Your task to perform on an android device: turn off airplane mode Image 0: 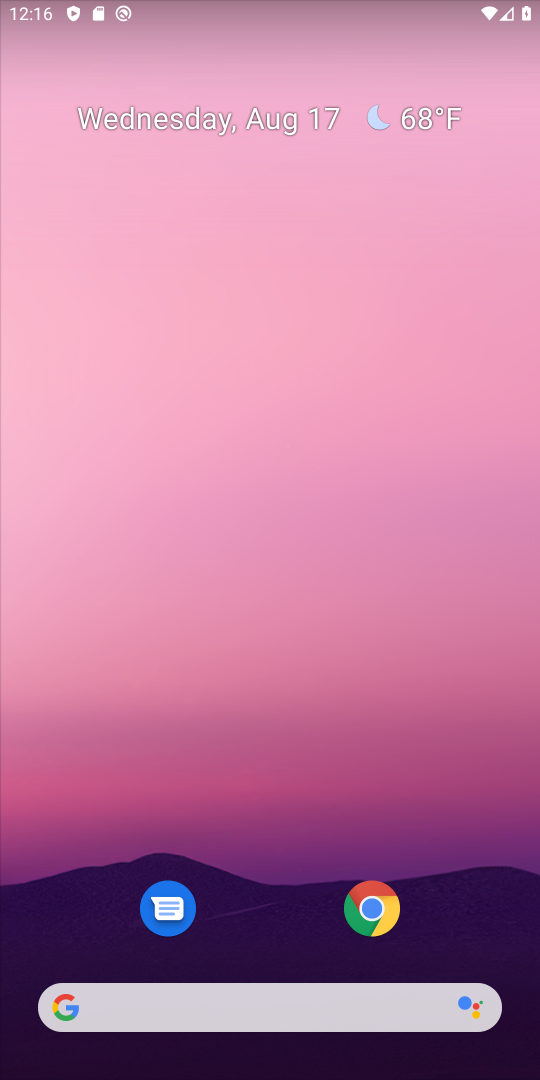
Step 0: drag from (269, 871) to (195, 223)
Your task to perform on an android device: turn off airplane mode Image 1: 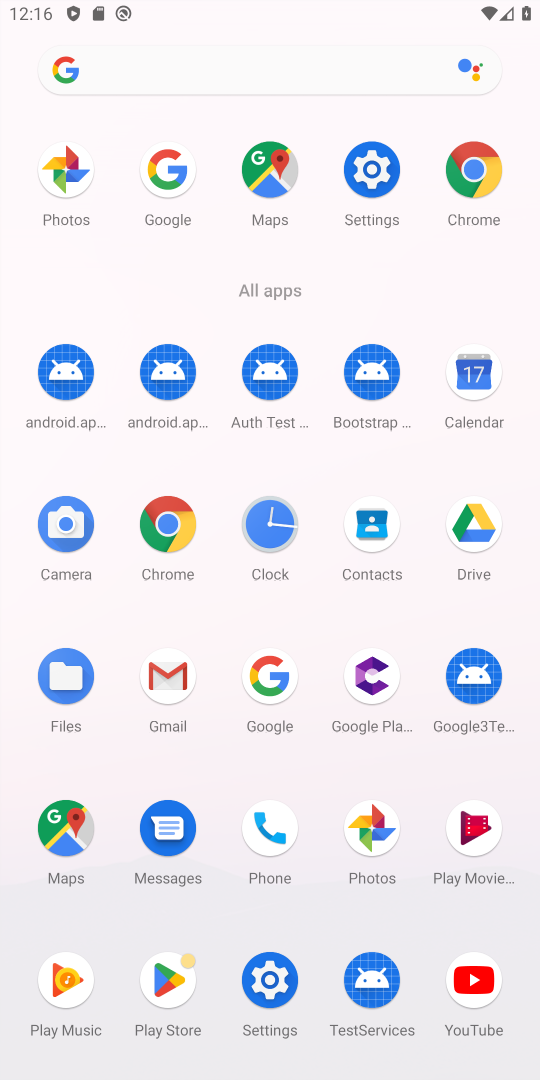
Step 1: click (356, 173)
Your task to perform on an android device: turn off airplane mode Image 2: 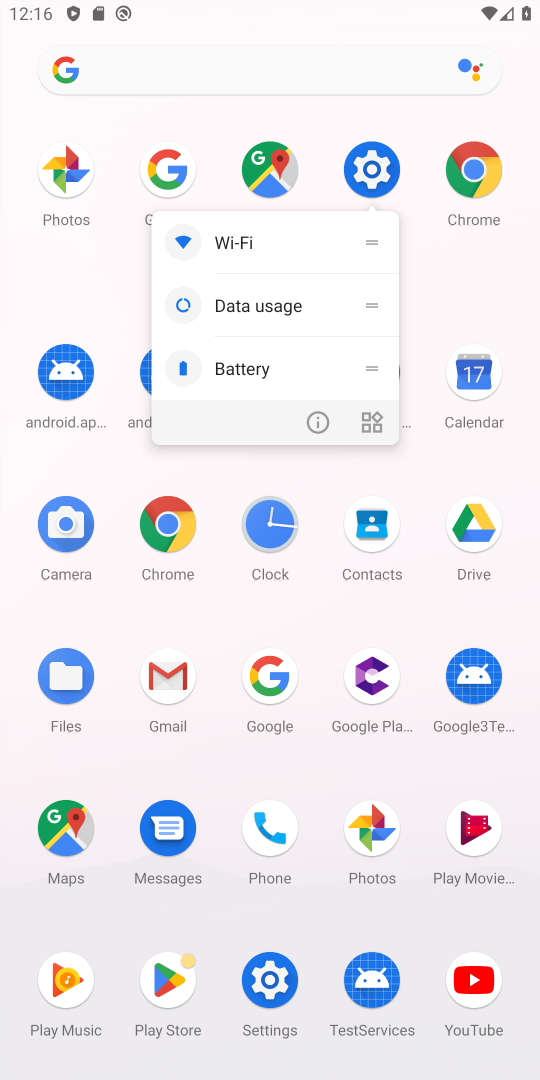
Step 2: click (356, 173)
Your task to perform on an android device: turn off airplane mode Image 3: 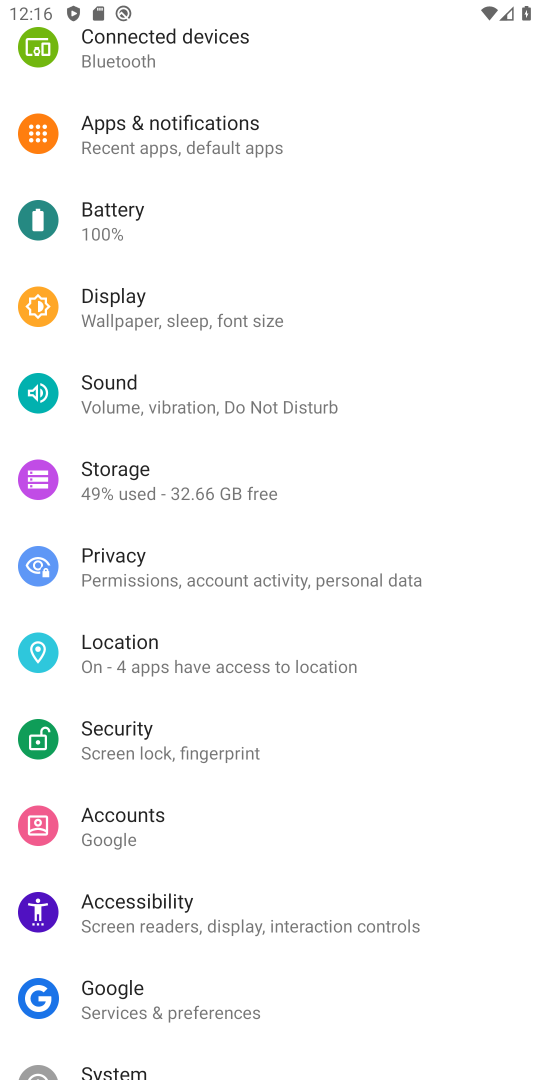
Step 3: drag from (228, 263) to (255, 963)
Your task to perform on an android device: turn off airplane mode Image 4: 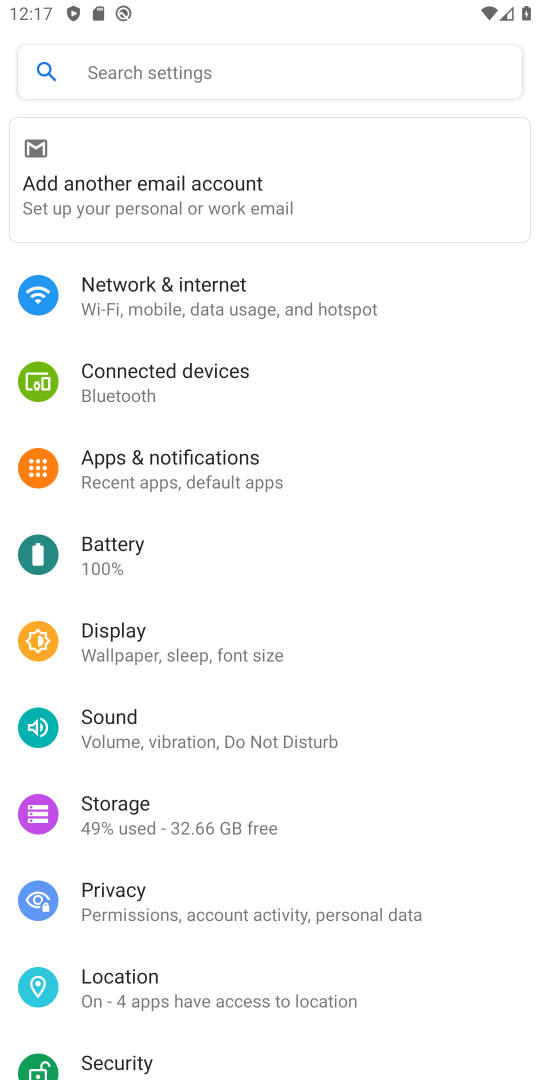
Step 4: click (152, 309)
Your task to perform on an android device: turn off airplane mode Image 5: 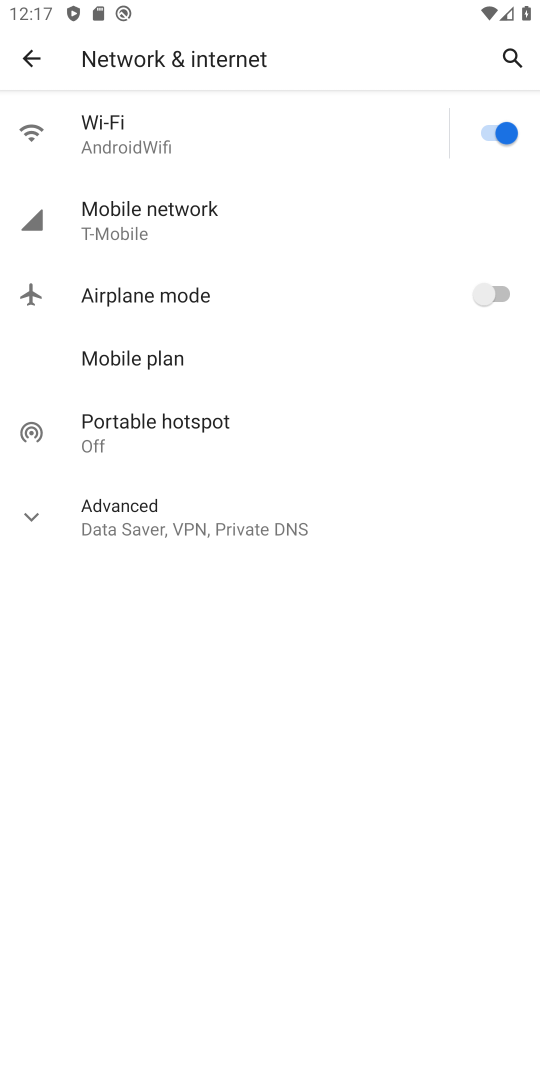
Step 5: task complete